Your task to perform on an android device: find photos in the google photos app Image 0: 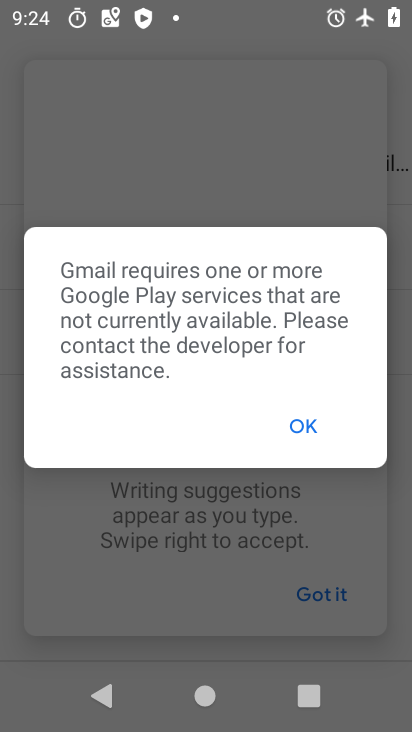
Step 0: press home button
Your task to perform on an android device: find photos in the google photos app Image 1: 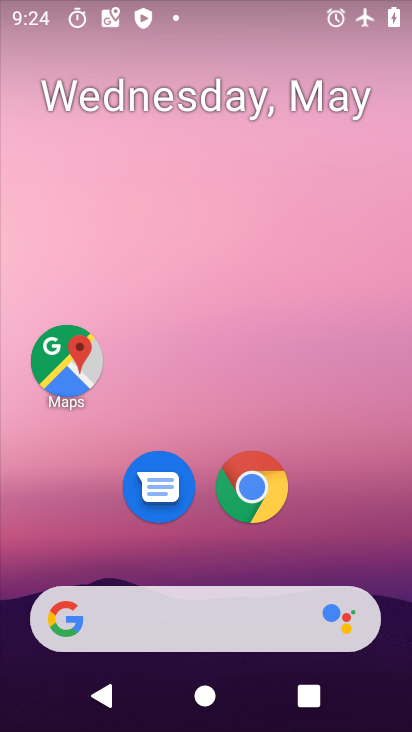
Step 1: drag from (208, 567) to (219, 136)
Your task to perform on an android device: find photos in the google photos app Image 2: 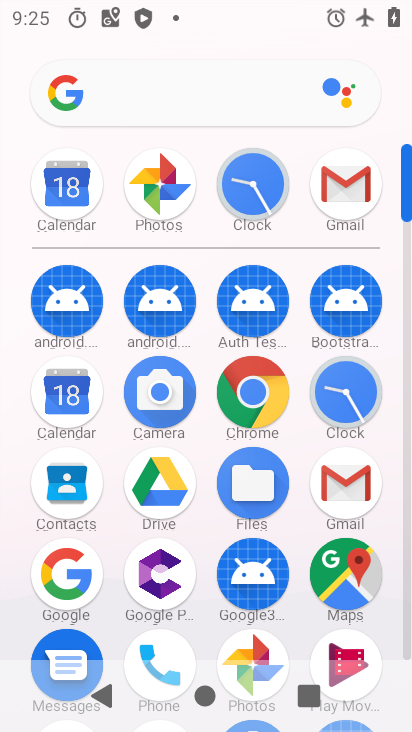
Step 2: click (266, 643)
Your task to perform on an android device: find photos in the google photos app Image 3: 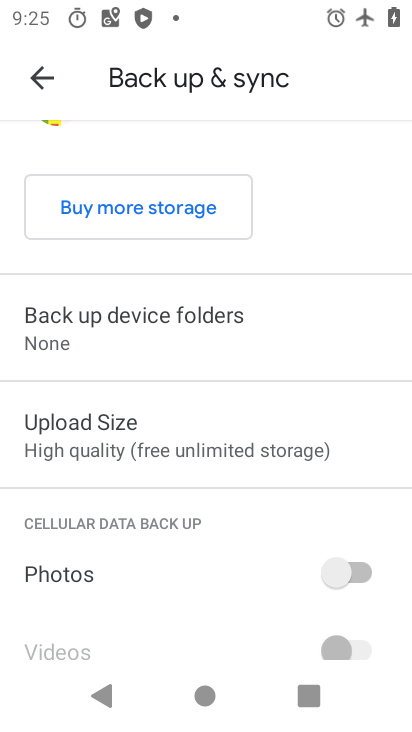
Step 3: click (41, 77)
Your task to perform on an android device: find photos in the google photos app Image 4: 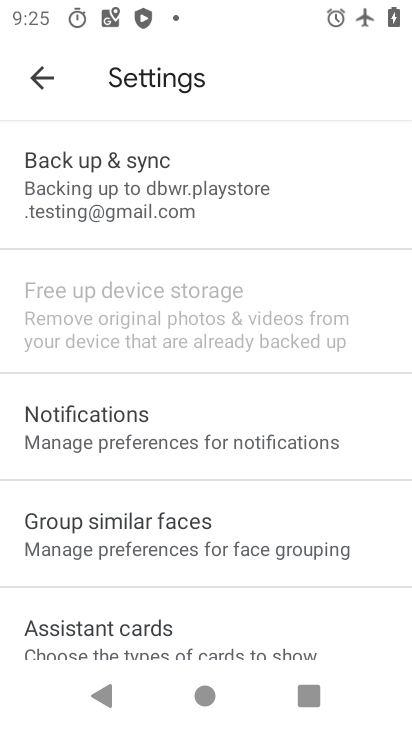
Step 4: click (41, 77)
Your task to perform on an android device: find photos in the google photos app Image 5: 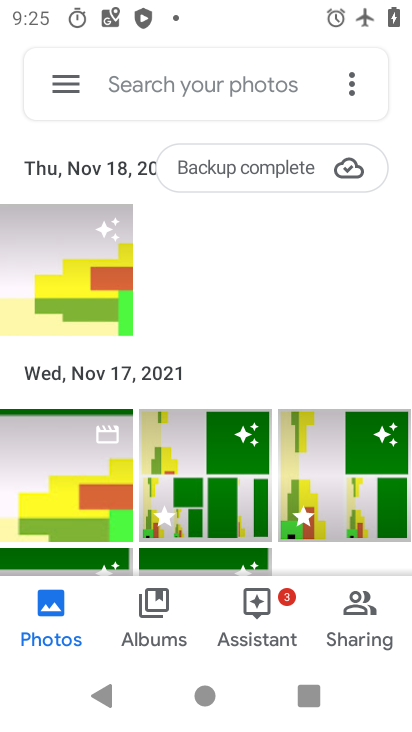
Step 5: click (126, 95)
Your task to perform on an android device: find photos in the google photos app Image 6: 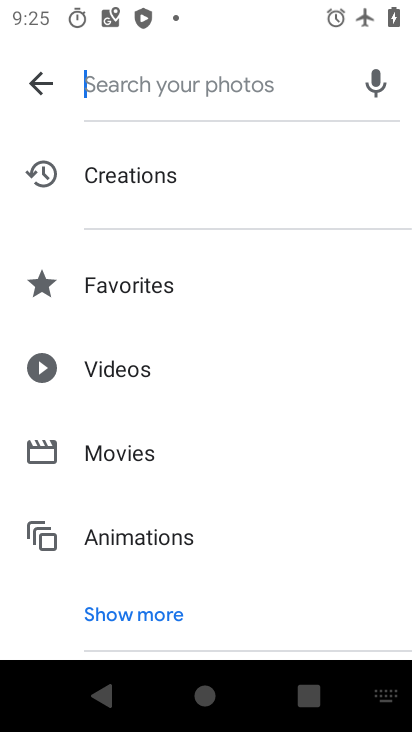
Step 6: type "aa"
Your task to perform on an android device: find photos in the google photos app Image 7: 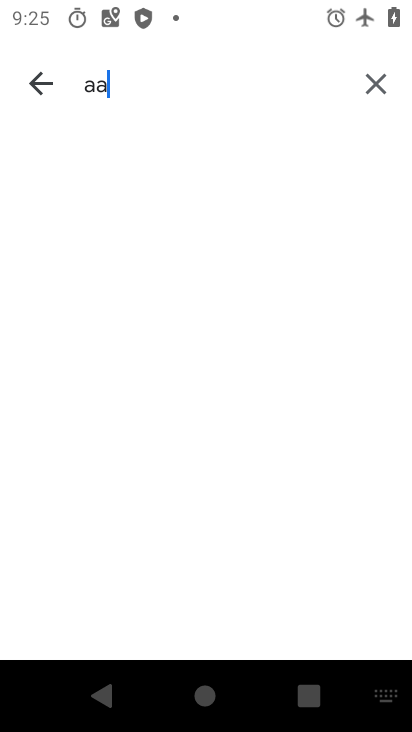
Step 7: click (160, 86)
Your task to perform on an android device: find photos in the google photos app Image 8: 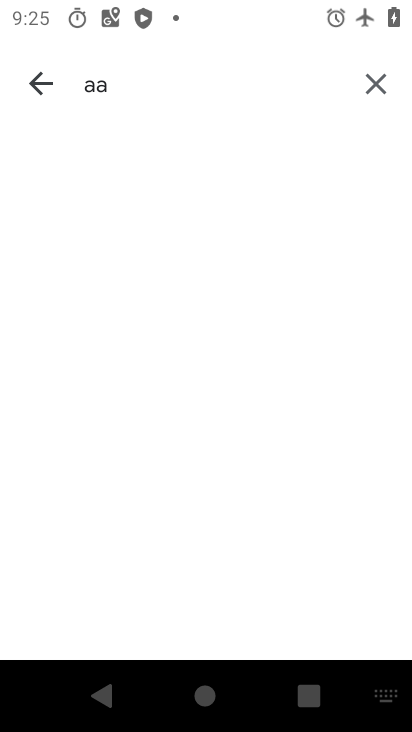
Step 8: type "a"
Your task to perform on an android device: find photos in the google photos app Image 9: 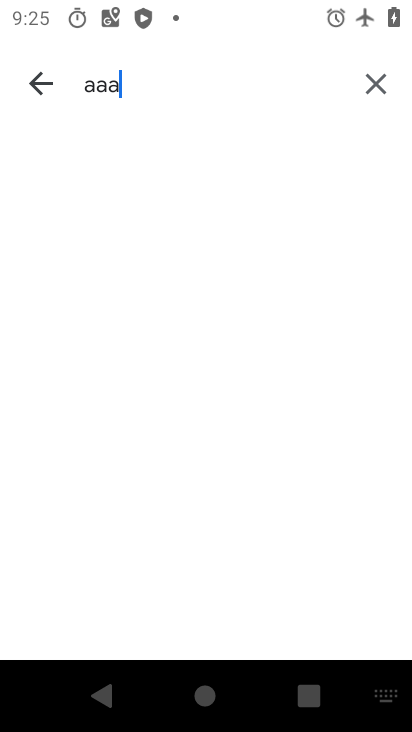
Step 9: task complete